Your task to perform on an android device: Open CNN.com Image 0: 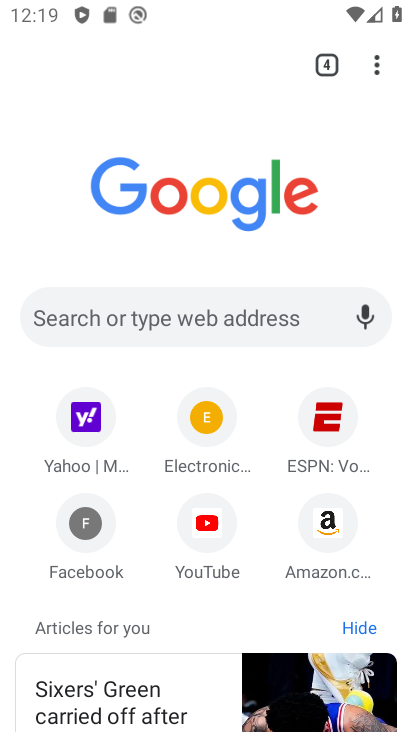
Step 0: click (102, 314)
Your task to perform on an android device: Open CNN.com Image 1: 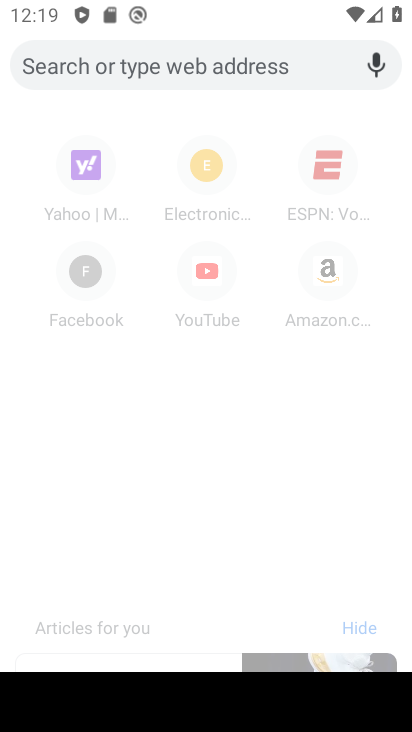
Step 1: type "cnn.com"
Your task to perform on an android device: Open CNN.com Image 2: 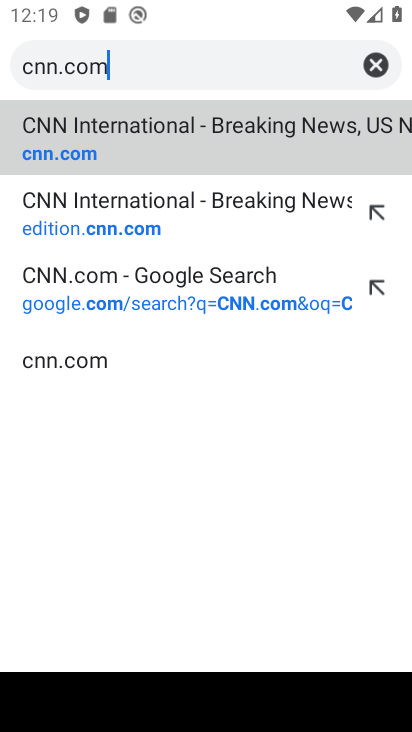
Step 2: click (153, 142)
Your task to perform on an android device: Open CNN.com Image 3: 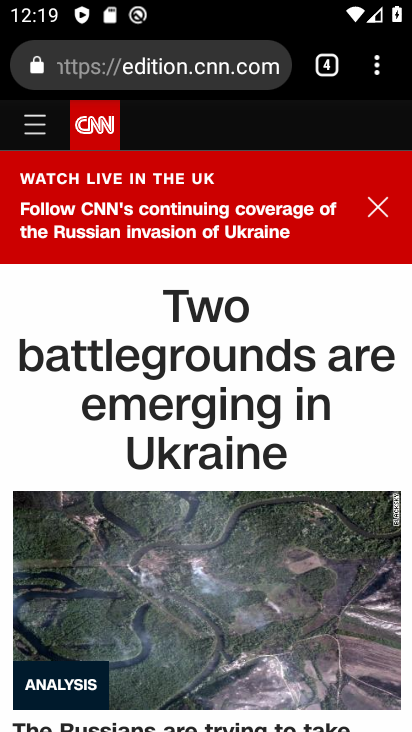
Step 3: task complete